Your task to perform on an android device: search for starred emails in the gmail app Image 0: 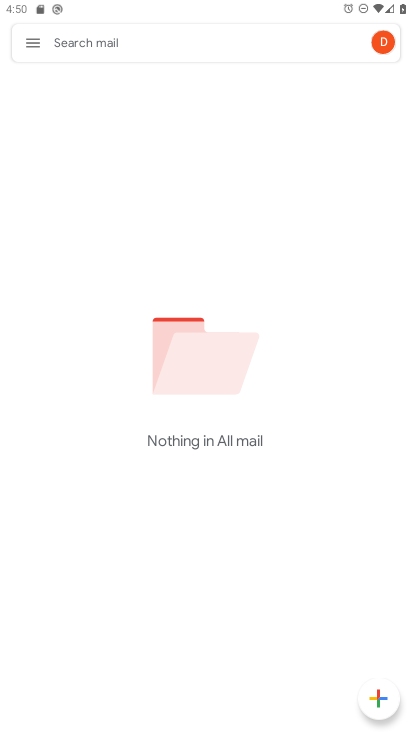
Step 0: click (25, 38)
Your task to perform on an android device: search for starred emails in the gmail app Image 1: 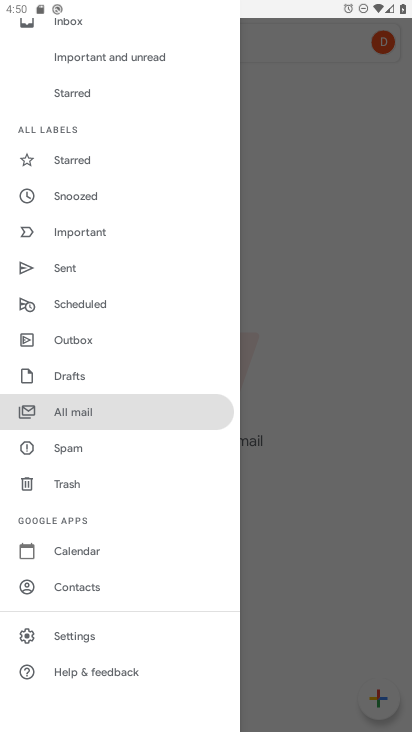
Step 1: click (67, 154)
Your task to perform on an android device: search for starred emails in the gmail app Image 2: 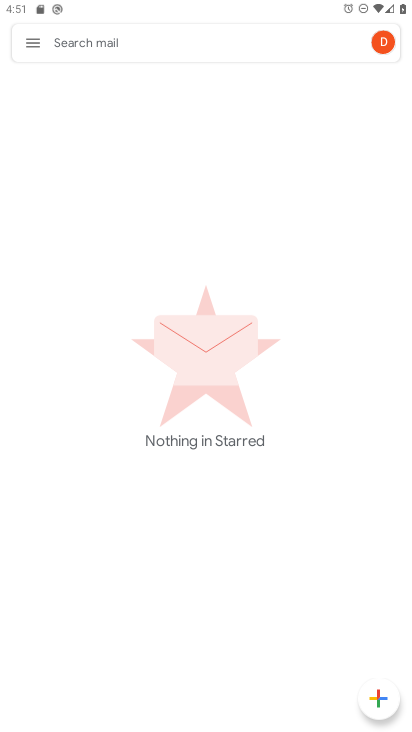
Step 2: task complete